Your task to perform on an android device: Open Yahoo.com Image 0: 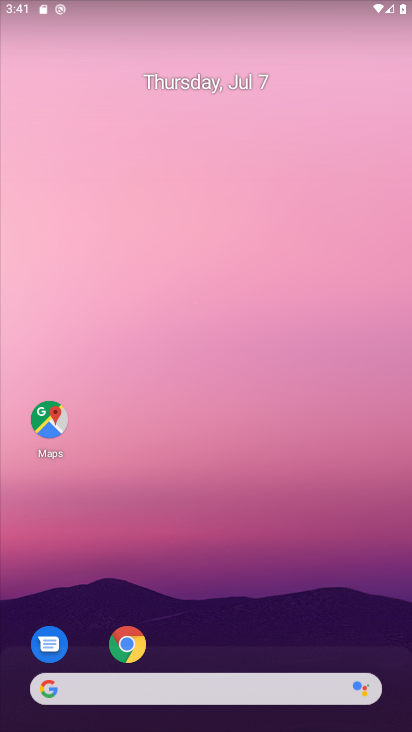
Step 0: click (128, 654)
Your task to perform on an android device: Open Yahoo.com Image 1: 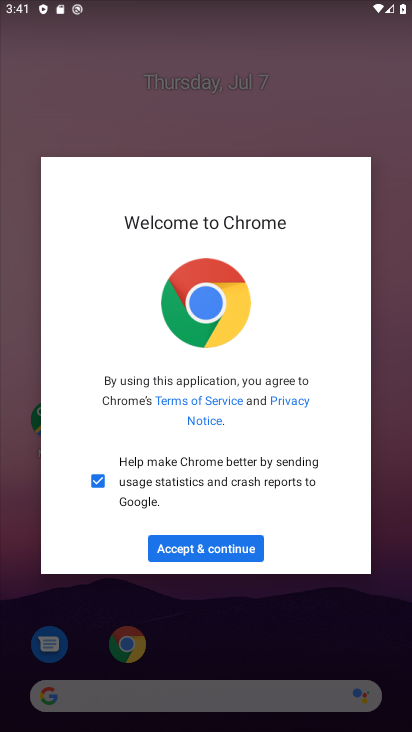
Step 1: click (225, 533)
Your task to perform on an android device: Open Yahoo.com Image 2: 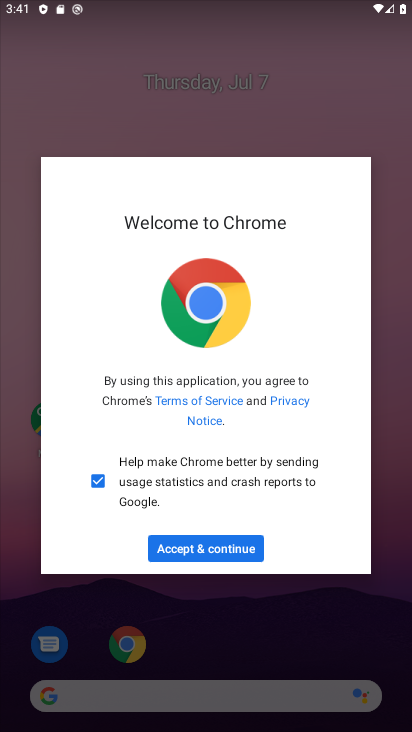
Step 2: click (232, 551)
Your task to perform on an android device: Open Yahoo.com Image 3: 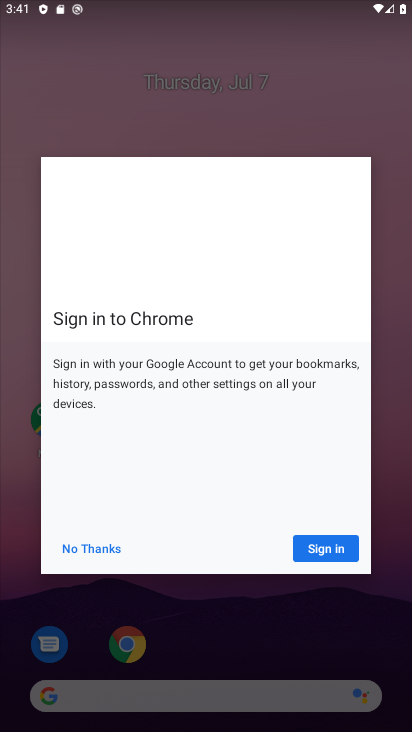
Step 3: click (317, 547)
Your task to perform on an android device: Open Yahoo.com Image 4: 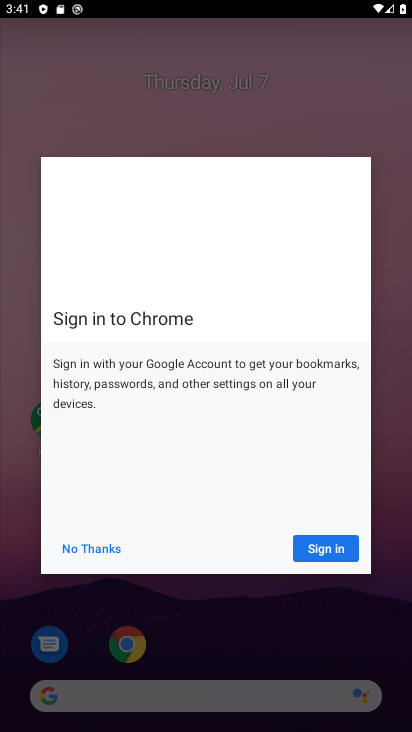
Step 4: click (324, 552)
Your task to perform on an android device: Open Yahoo.com Image 5: 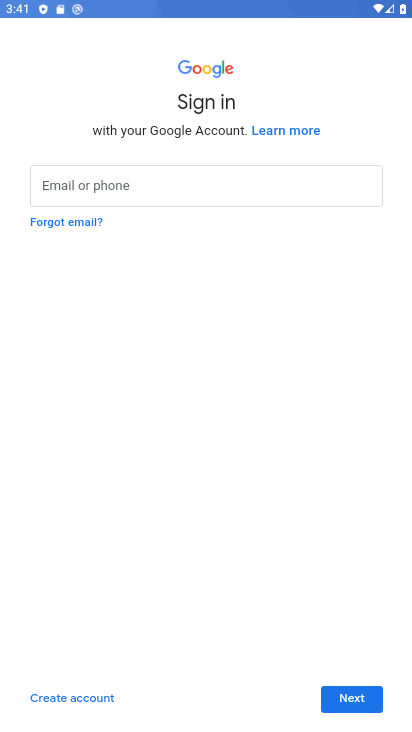
Step 5: task complete